Your task to perform on an android device: check data usage Image 0: 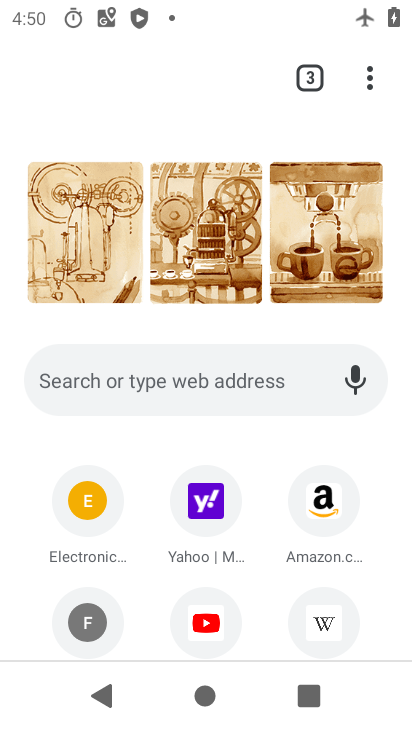
Step 0: press home button
Your task to perform on an android device: check data usage Image 1: 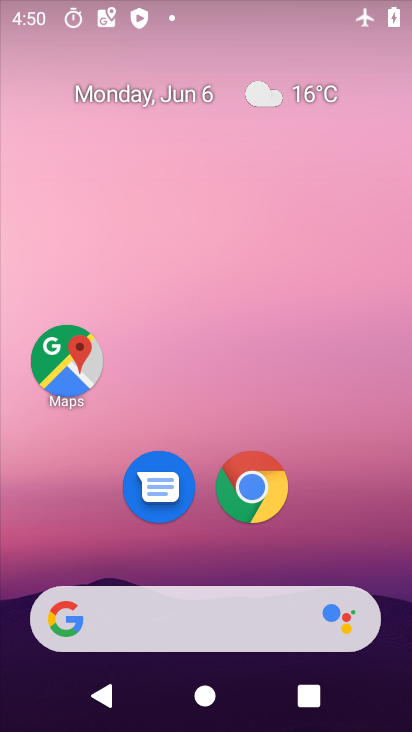
Step 1: drag from (387, 573) to (326, 153)
Your task to perform on an android device: check data usage Image 2: 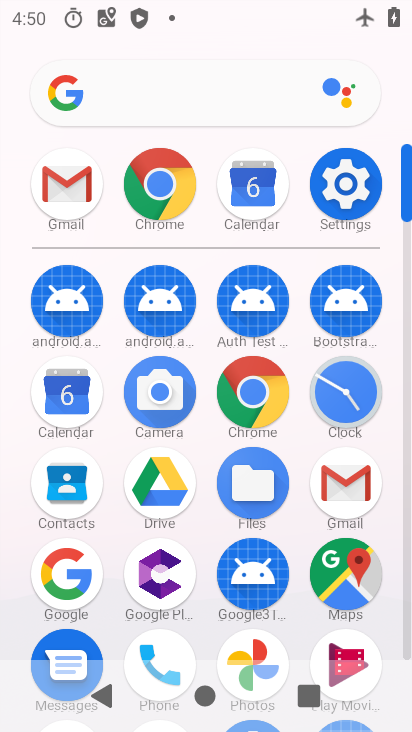
Step 2: click (332, 175)
Your task to perform on an android device: check data usage Image 3: 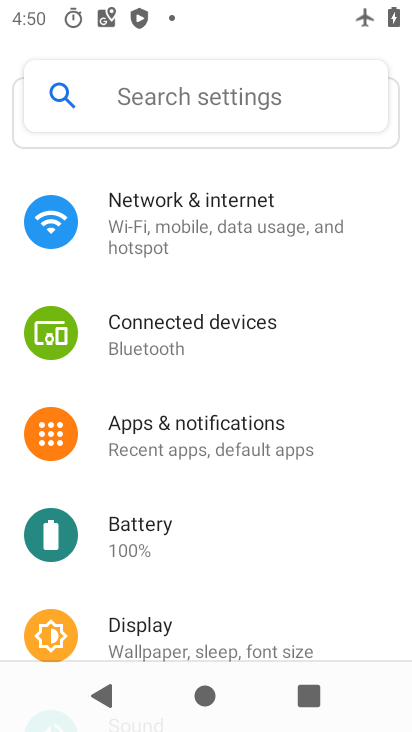
Step 3: click (253, 243)
Your task to perform on an android device: check data usage Image 4: 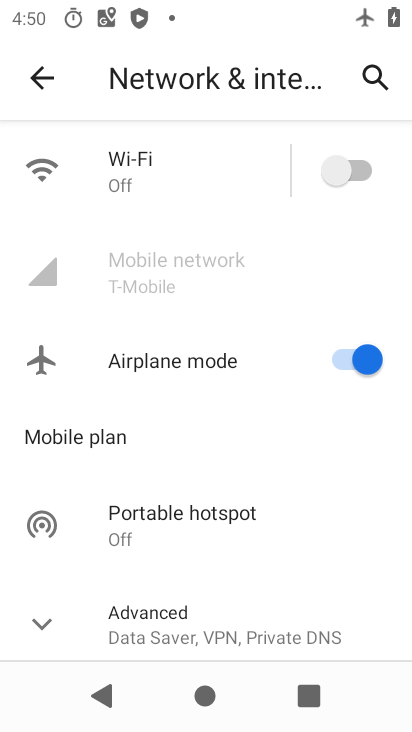
Step 4: click (202, 175)
Your task to perform on an android device: check data usage Image 5: 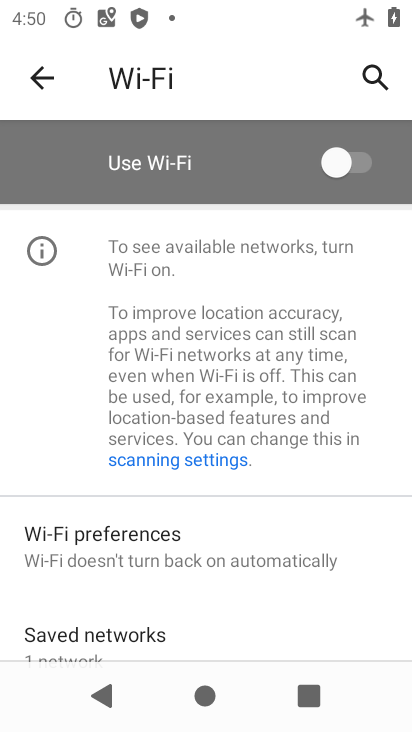
Step 5: drag from (292, 624) to (327, 241)
Your task to perform on an android device: check data usage Image 6: 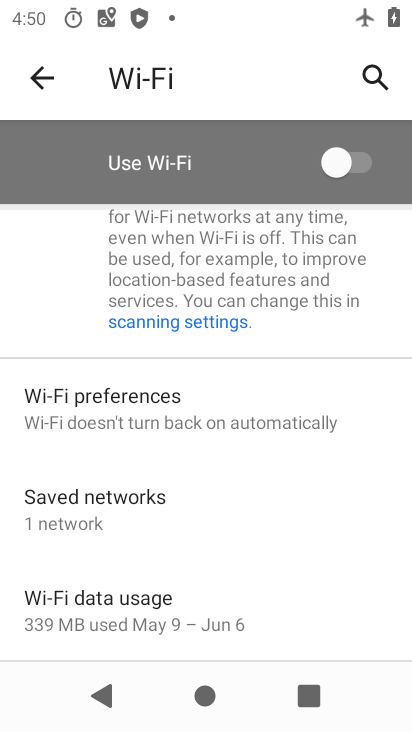
Step 6: click (133, 615)
Your task to perform on an android device: check data usage Image 7: 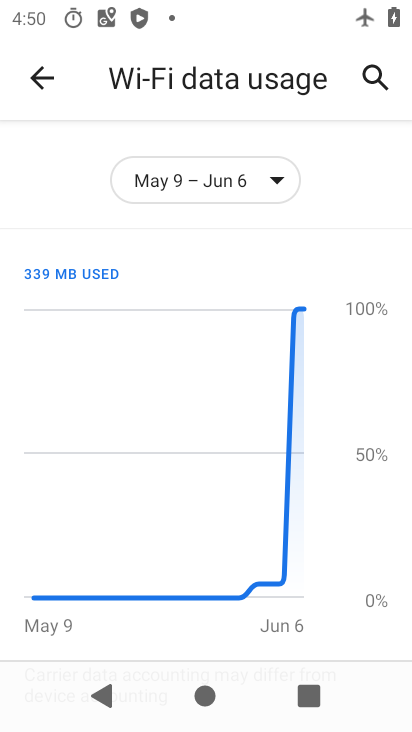
Step 7: task complete